Your task to perform on an android device: Turn off the flashlight Image 0: 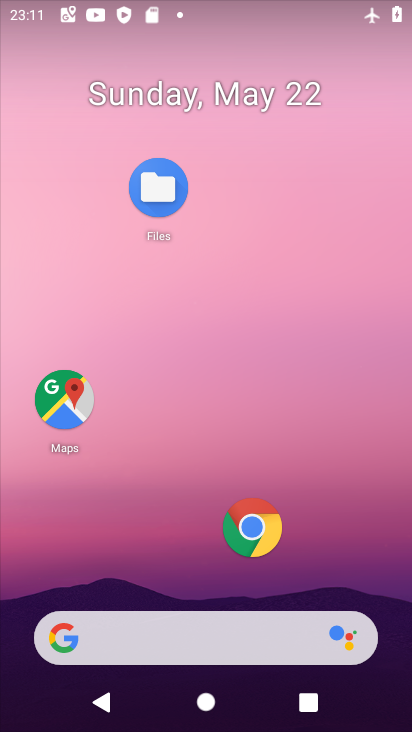
Step 0: drag from (188, 528) to (376, 418)
Your task to perform on an android device: Turn off the flashlight Image 1: 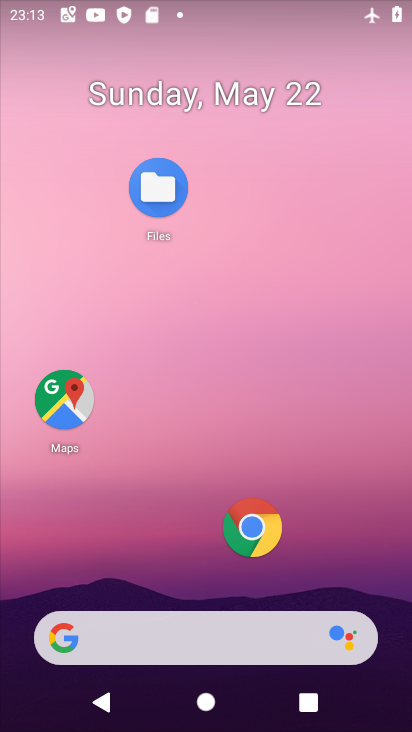
Step 1: drag from (166, 558) to (322, 1)
Your task to perform on an android device: Turn off the flashlight Image 2: 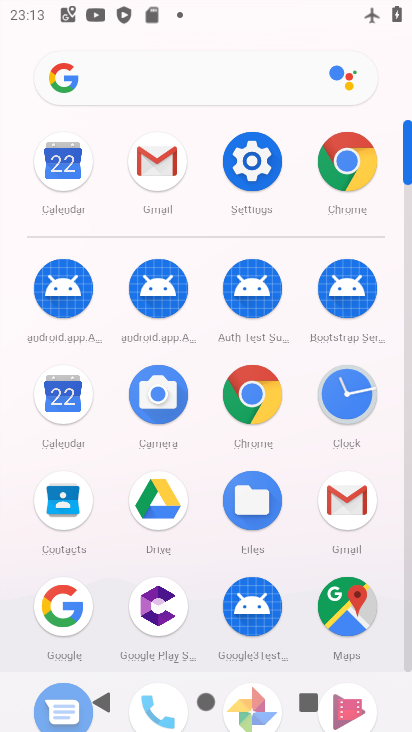
Step 2: click (247, 171)
Your task to perform on an android device: Turn off the flashlight Image 3: 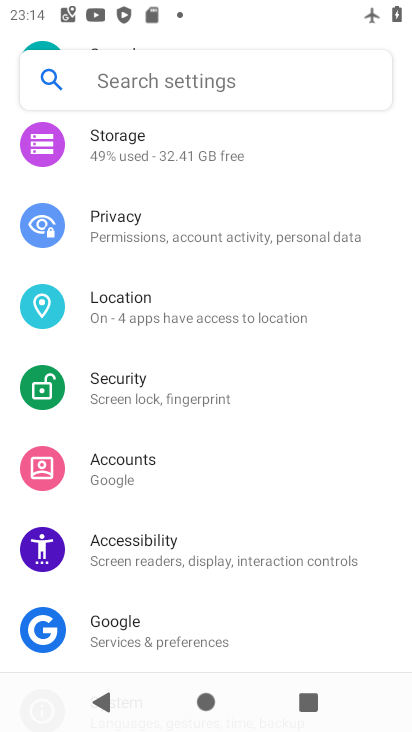
Step 3: click (134, 207)
Your task to perform on an android device: Turn off the flashlight Image 4: 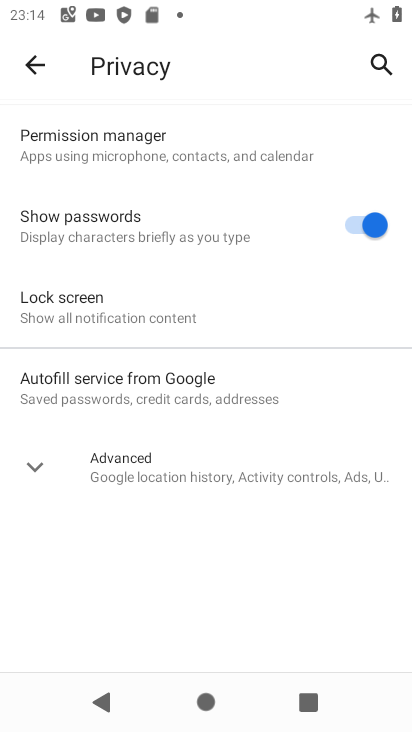
Step 4: task complete